Your task to perform on an android device: turn on javascript in the chrome app Image 0: 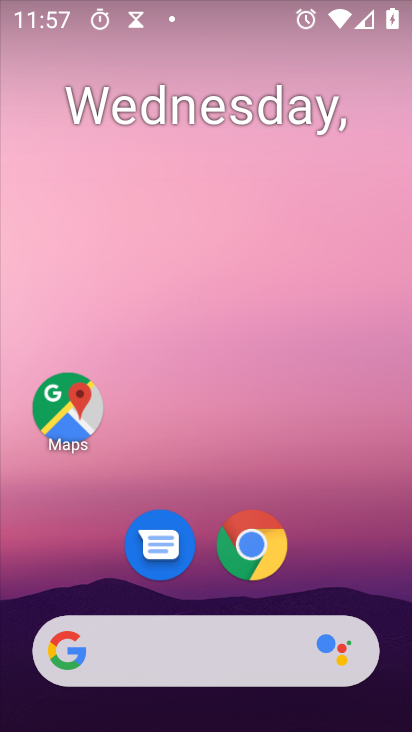
Step 0: click (251, 573)
Your task to perform on an android device: turn on javascript in the chrome app Image 1: 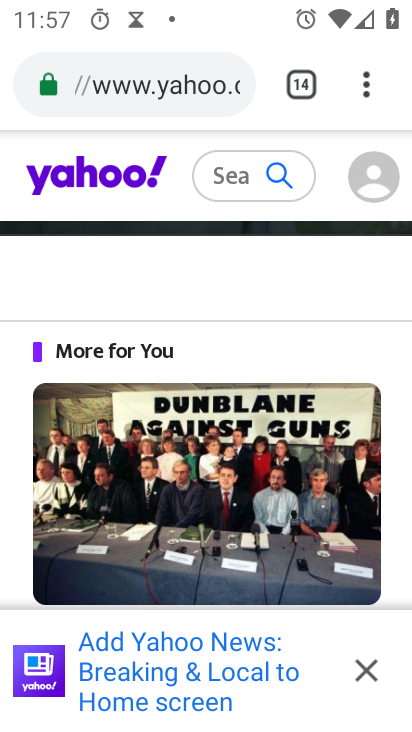
Step 1: drag from (366, 85) to (196, 597)
Your task to perform on an android device: turn on javascript in the chrome app Image 2: 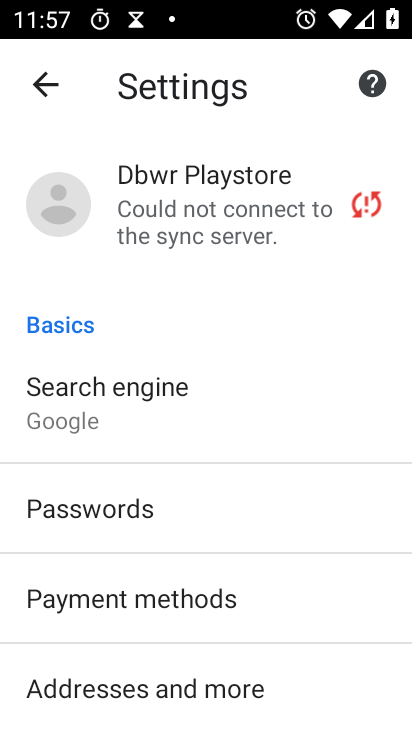
Step 2: drag from (207, 620) to (347, 138)
Your task to perform on an android device: turn on javascript in the chrome app Image 3: 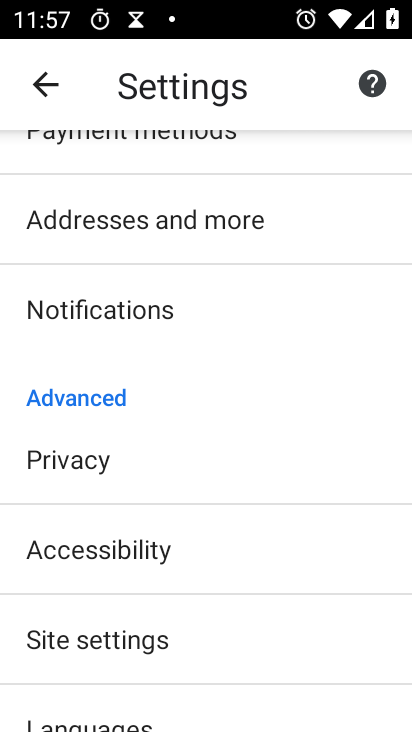
Step 3: drag from (198, 623) to (275, 258)
Your task to perform on an android device: turn on javascript in the chrome app Image 4: 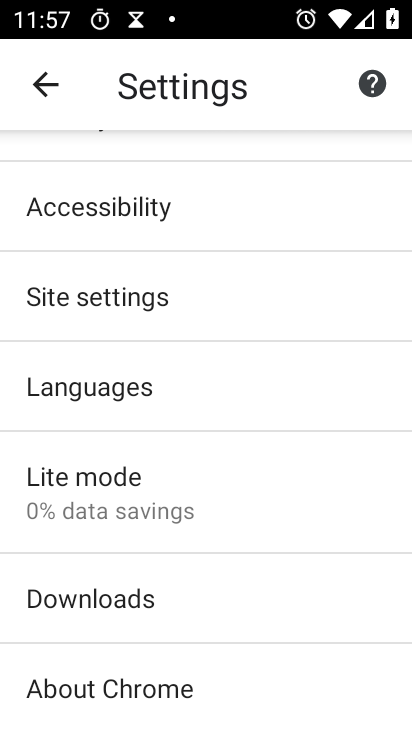
Step 4: click (156, 304)
Your task to perform on an android device: turn on javascript in the chrome app Image 5: 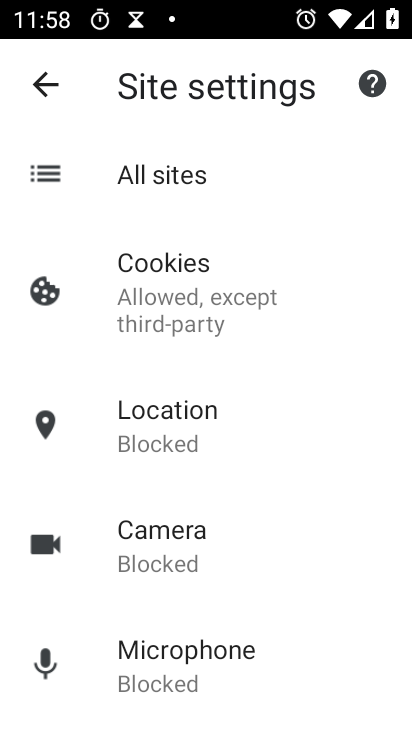
Step 5: drag from (235, 530) to (342, 203)
Your task to perform on an android device: turn on javascript in the chrome app Image 6: 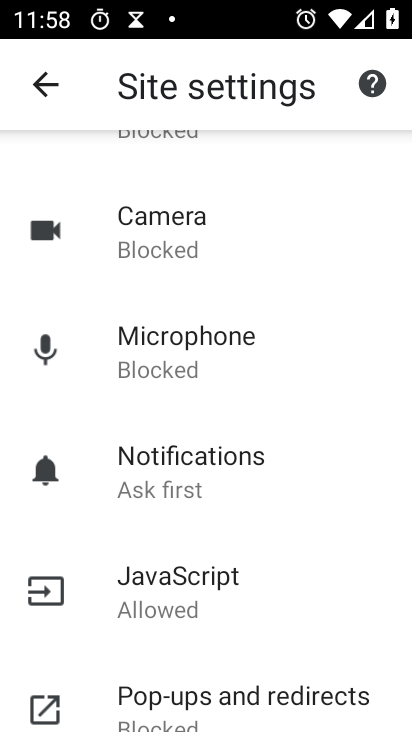
Step 6: click (174, 581)
Your task to perform on an android device: turn on javascript in the chrome app Image 7: 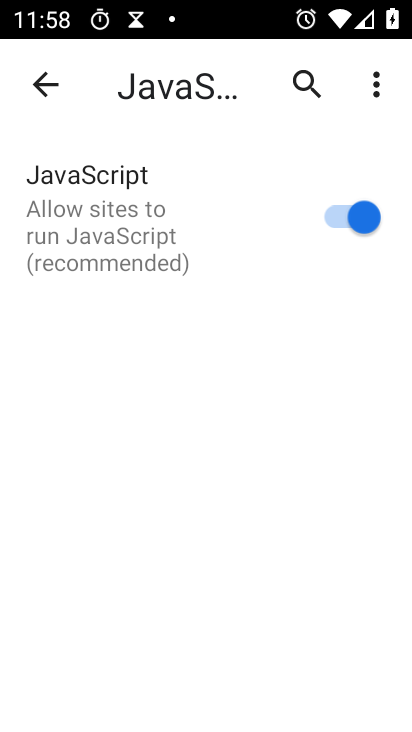
Step 7: click (351, 215)
Your task to perform on an android device: turn on javascript in the chrome app Image 8: 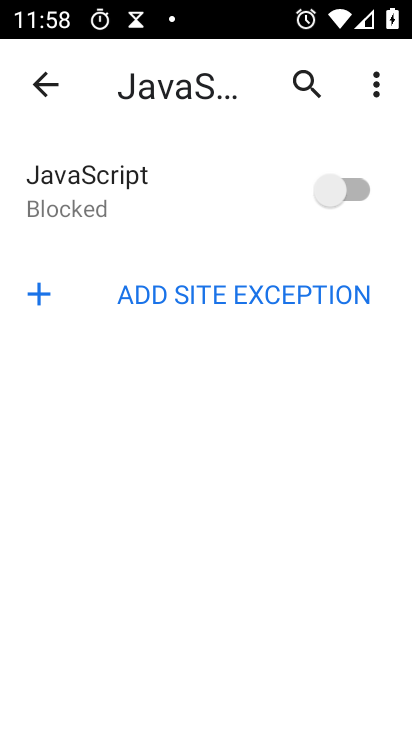
Step 8: task complete